Your task to perform on an android device: Go to location settings Image 0: 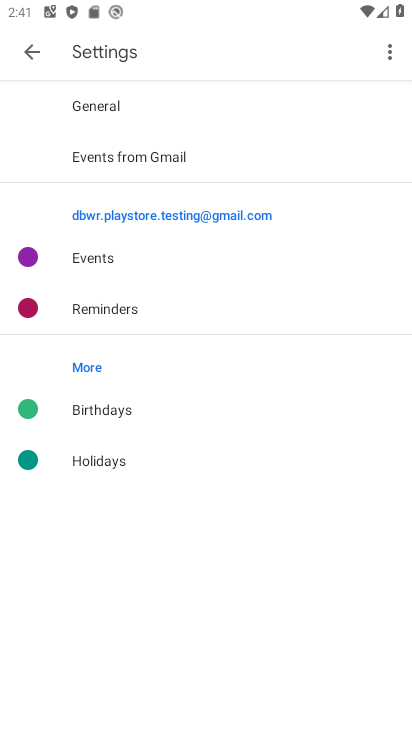
Step 0: press home button
Your task to perform on an android device: Go to location settings Image 1: 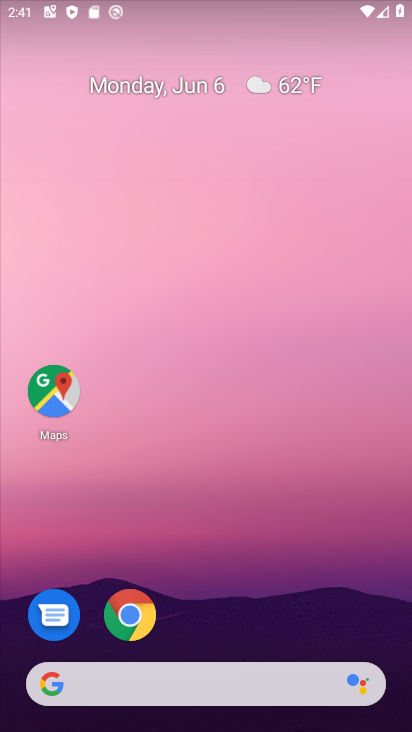
Step 1: drag from (197, 700) to (214, 6)
Your task to perform on an android device: Go to location settings Image 2: 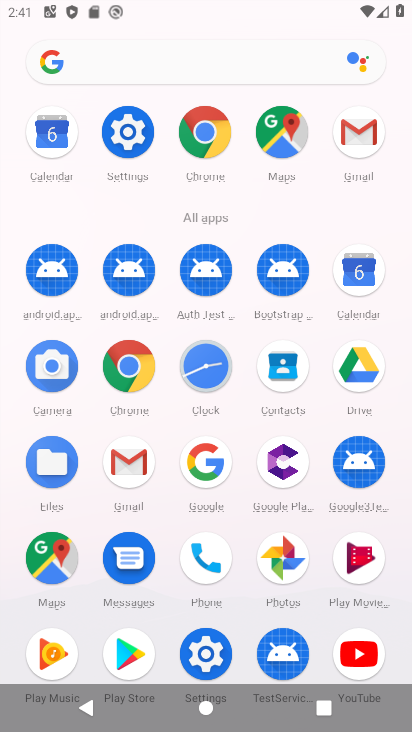
Step 2: click (131, 124)
Your task to perform on an android device: Go to location settings Image 3: 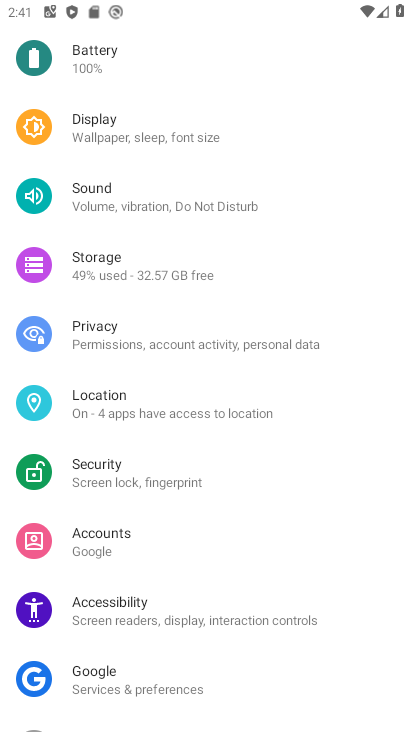
Step 3: click (170, 414)
Your task to perform on an android device: Go to location settings Image 4: 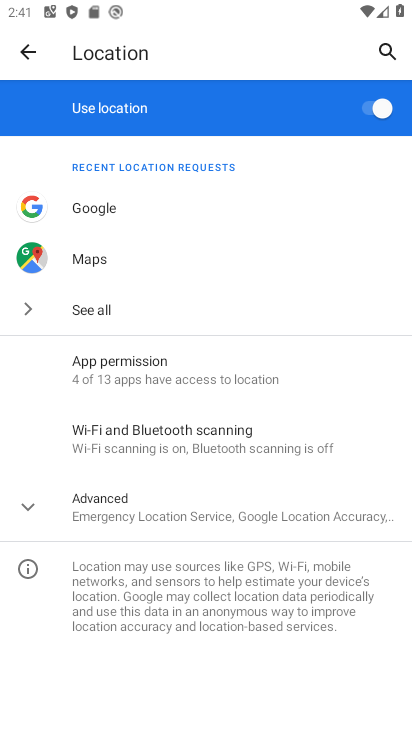
Step 4: task complete